Your task to perform on an android device: check out phone information Image 0: 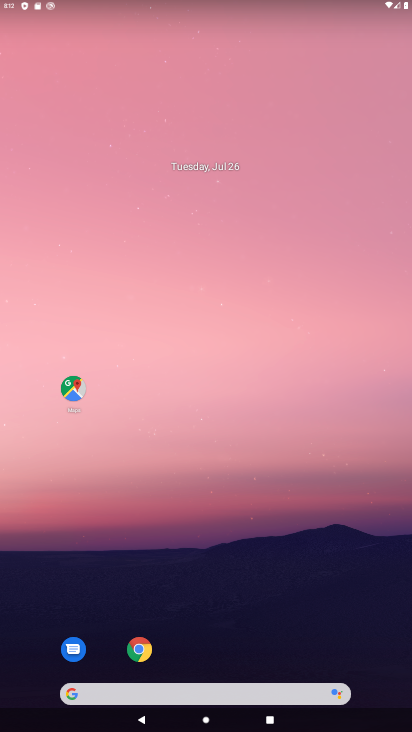
Step 0: drag from (216, 628) to (219, 91)
Your task to perform on an android device: check out phone information Image 1: 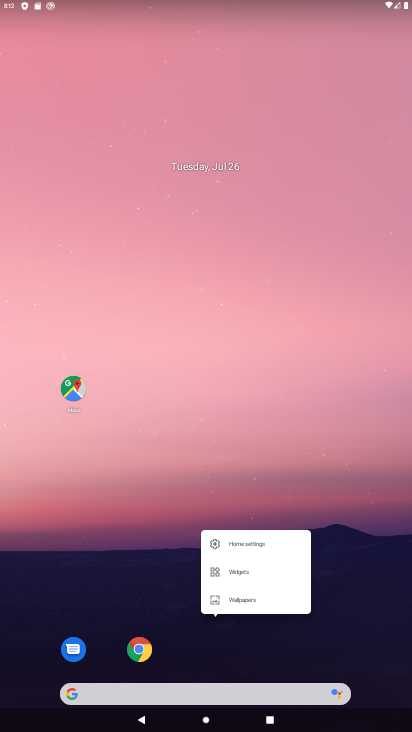
Step 1: drag from (299, 637) to (322, 189)
Your task to perform on an android device: check out phone information Image 2: 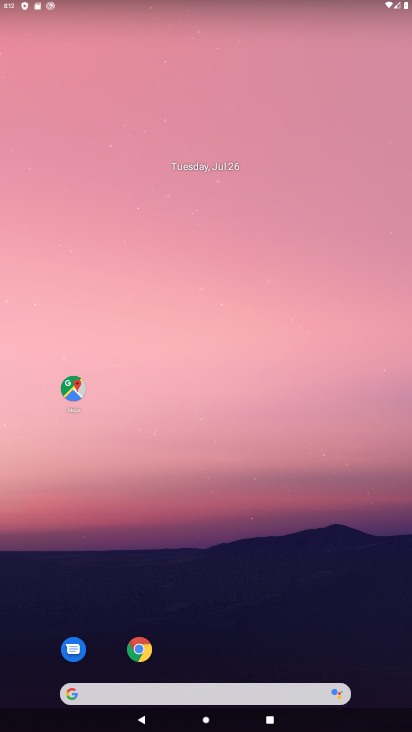
Step 2: click (205, 659)
Your task to perform on an android device: check out phone information Image 3: 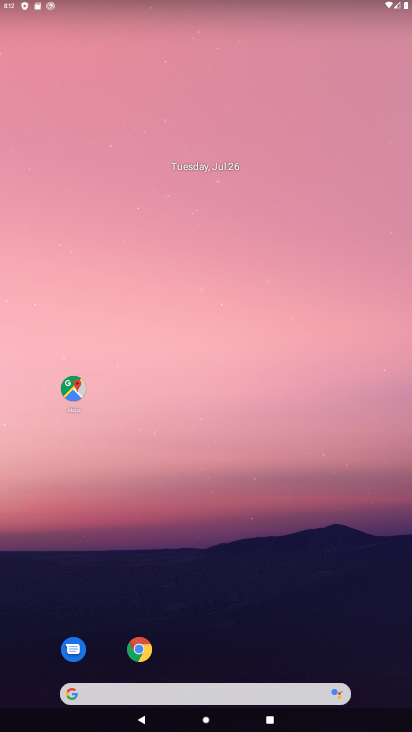
Step 3: drag from (205, 659) to (228, 201)
Your task to perform on an android device: check out phone information Image 4: 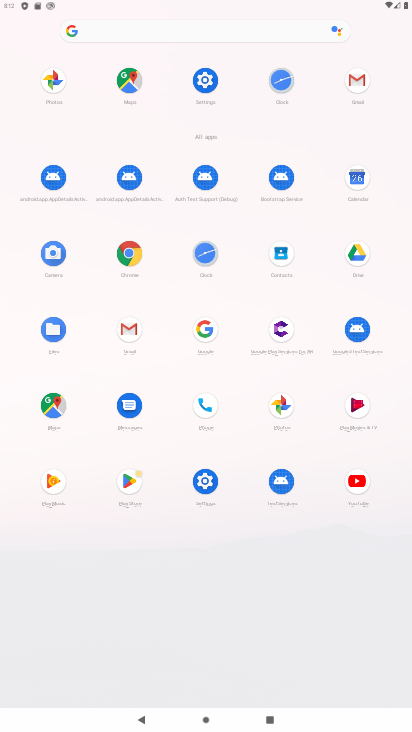
Step 4: click (200, 64)
Your task to perform on an android device: check out phone information Image 5: 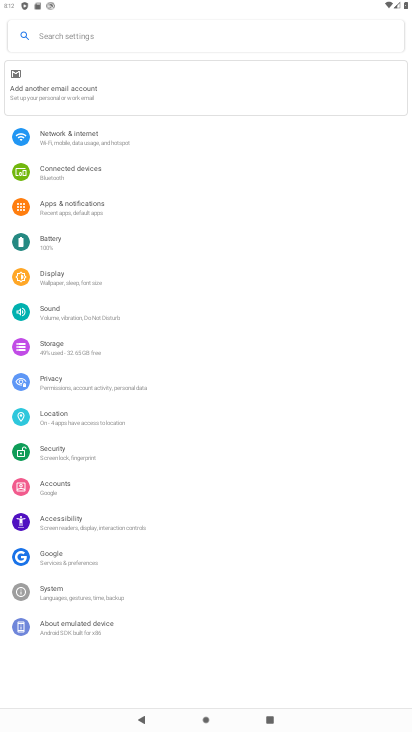
Step 5: click (203, 638)
Your task to perform on an android device: check out phone information Image 6: 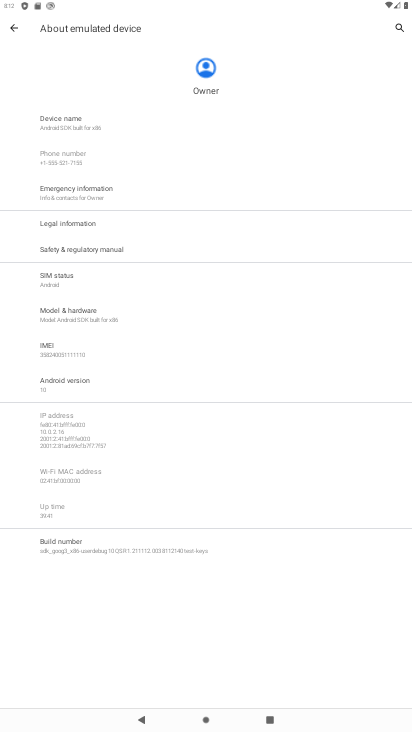
Step 6: task complete